Your task to perform on an android device: Open location settings Image 0: 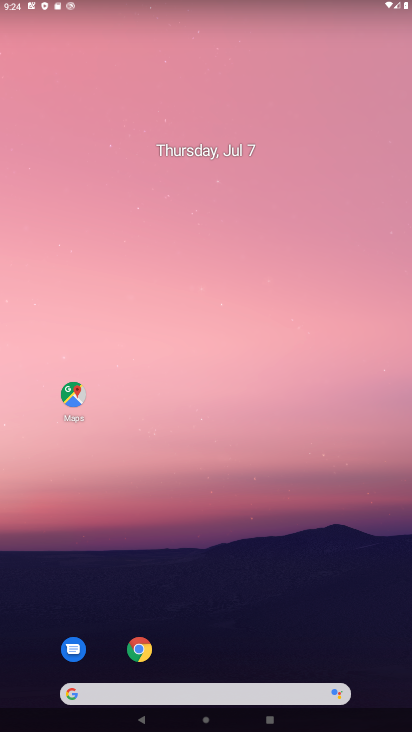
Step 0: drag from (223, 726) to (209, 117)
Your task to perform on an android device: Open location settings Image 1: 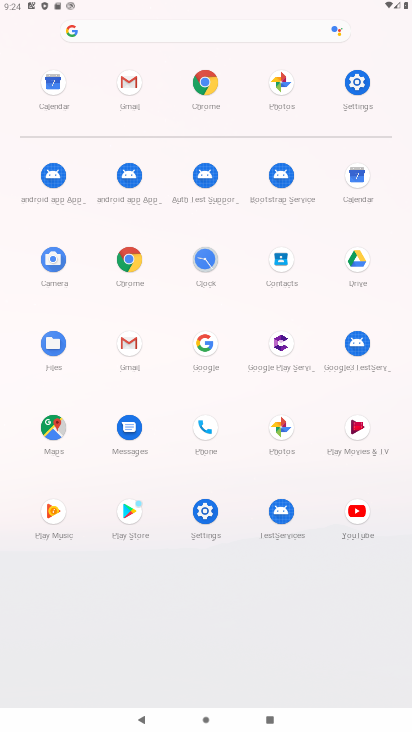
Step 1: click (359, 82)
Your task to perform on an android device: Open location settings Image 2: 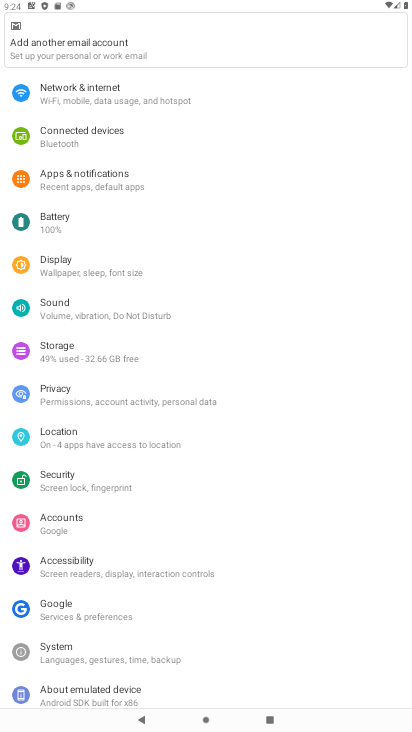
Step 2: click (69, 430)
Your task to perform on an android device: Open location settings Image 3: 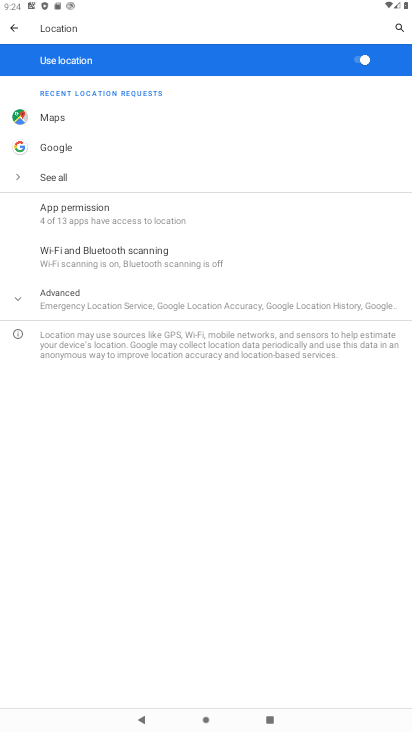
Step 3: task complete